Your task to perform on an android device: move a message to another label in the gmail app Image 0: 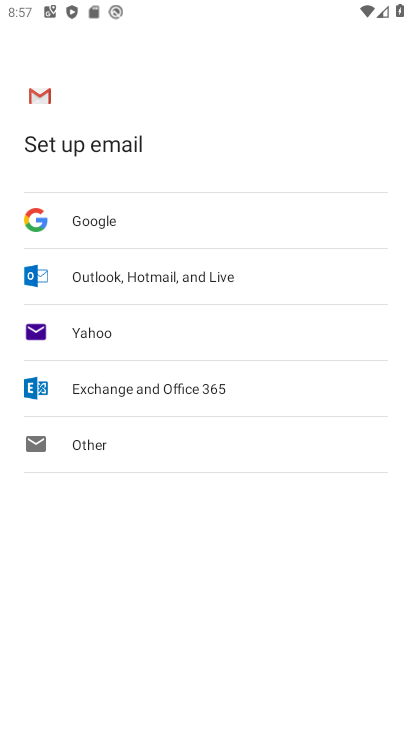
Step 0: press home button
Your task to perform on an android device: move a message to another label in the gmail app Image 1: 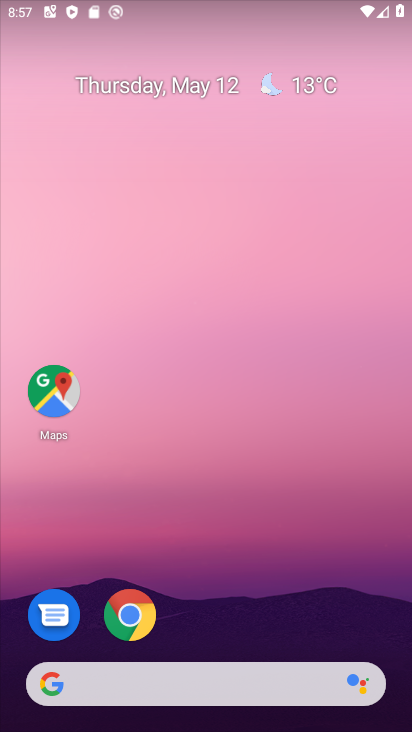
Step 1: drag from (199, 645) to (183, 30)
Your task to perform on an android device: move a message to another label in the gmail app Image 2: 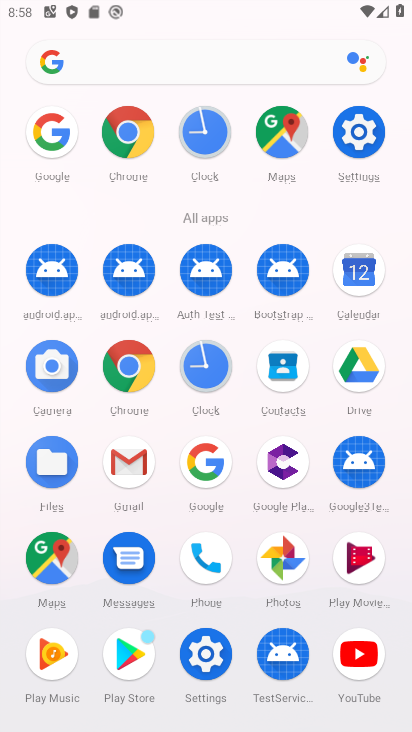
Step 2: click (126, 474)
Your task to perform on an android device: move a message to another label in the gmail app Image 3: 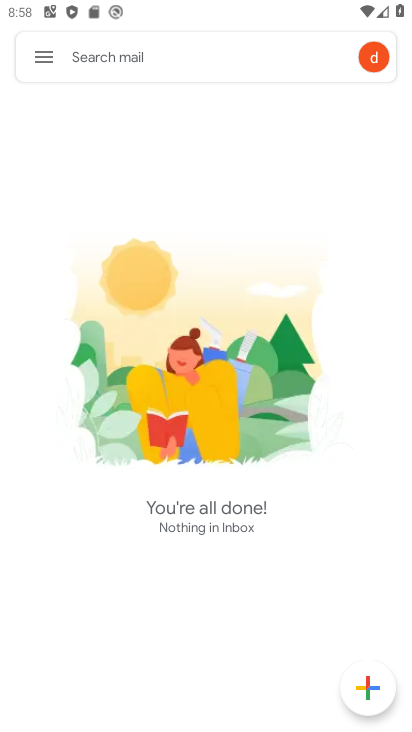
Step 3: click (40, 53)
Your task to perform on an android device: move a message to another label in the gmail app Image 4: 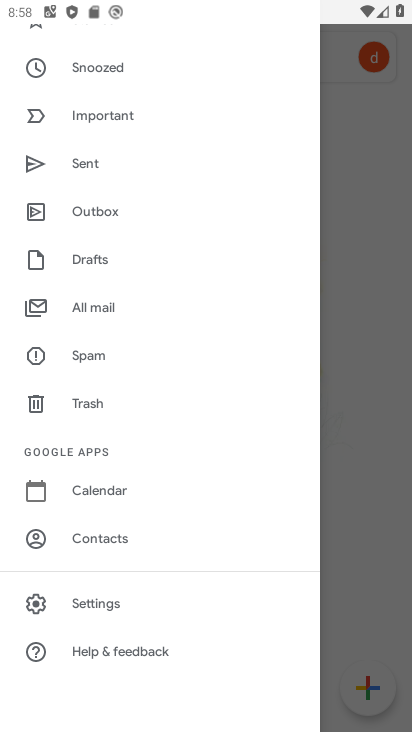
Step 4: click (65, 315)
Your task to perform on an android device: move a message to another label in the gmail app Image 5: 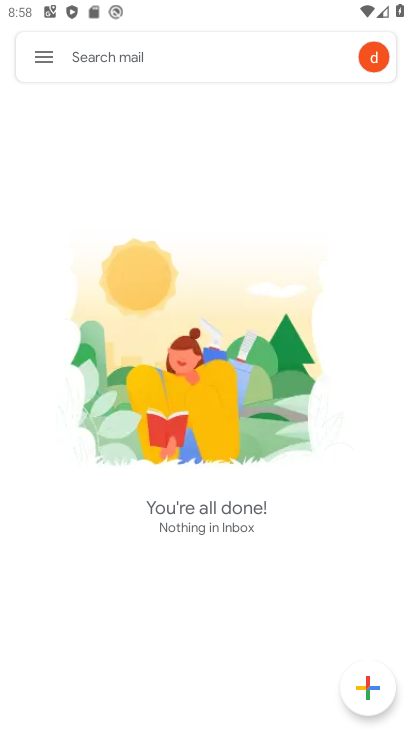
Step 5: task complete